Your task to perform on an android device: Open notification settings Image 0: 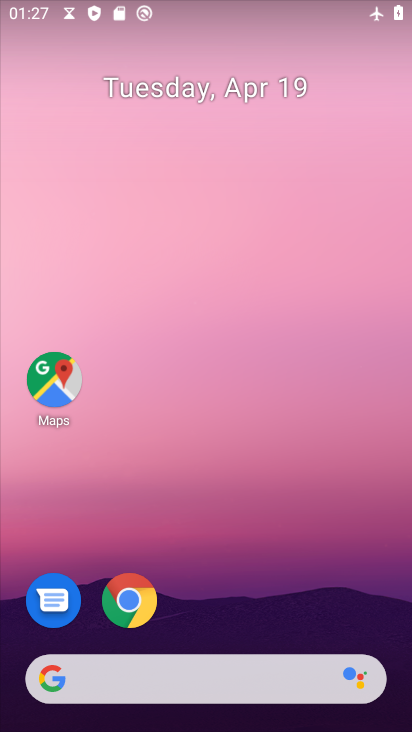
Step 0: drag from (196, 646) to (136, 59)
Your task to perform on an android device: Open notification settings Image 1: 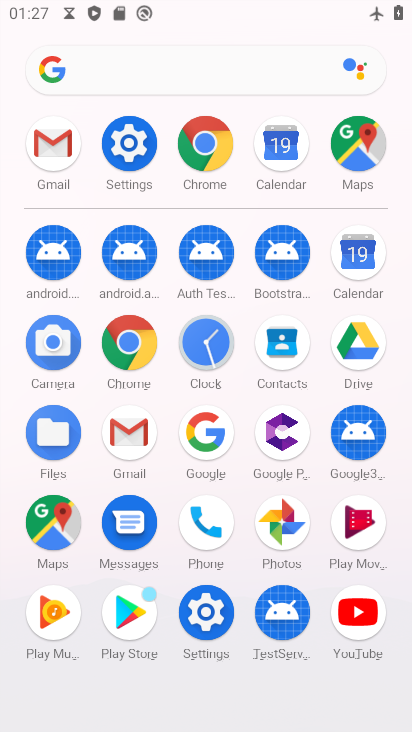
Step 1: click (209, 602)
Your task to perform on an android device: Open notification settings Image 2: 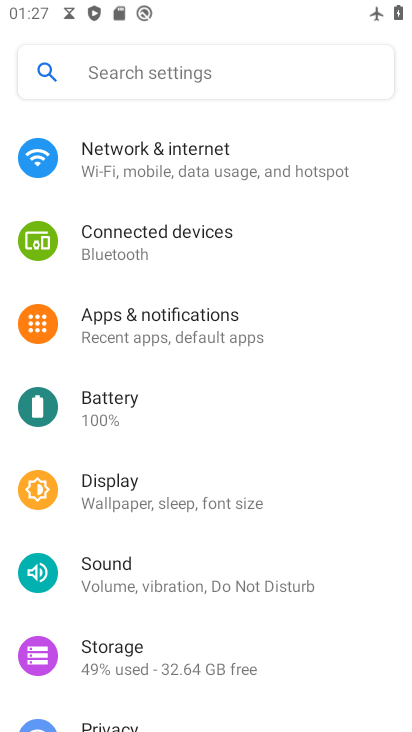
Step 2: click (168, 319)
Your task to perform on an android device: Open notification settings Image 3: 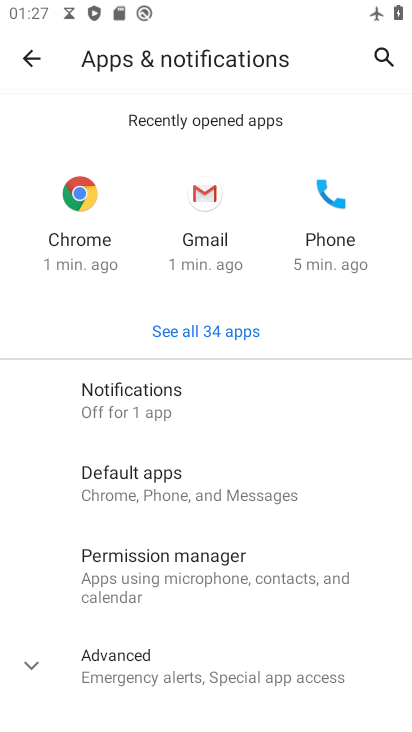
Step 3: click (192, 384)
Your task to perform on an android device: Open notification settings Image 4: 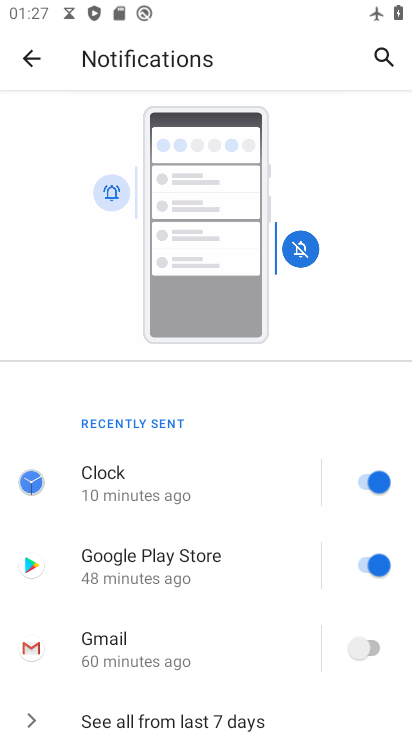
Step 4: task complete